Your task to perform on an android device: Search for flights from Zurich to Helsinki Image 0: 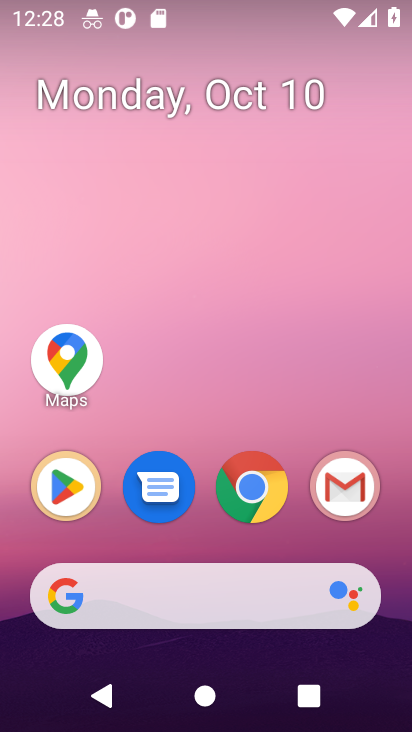
Step 0: click (244, 490)
Your task to perform on an android device: Search for flights from Zurich to Helsinki Image 1: 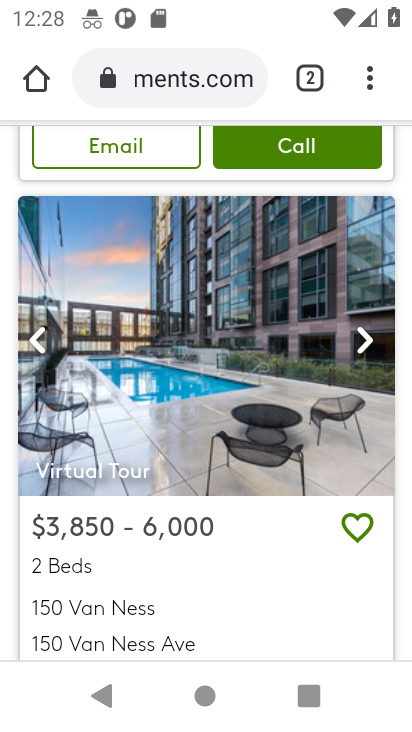
Step 1: click (211, 82)
Your task to perform on an android device: Search for flights from Zurich to Helsinki Image 2: 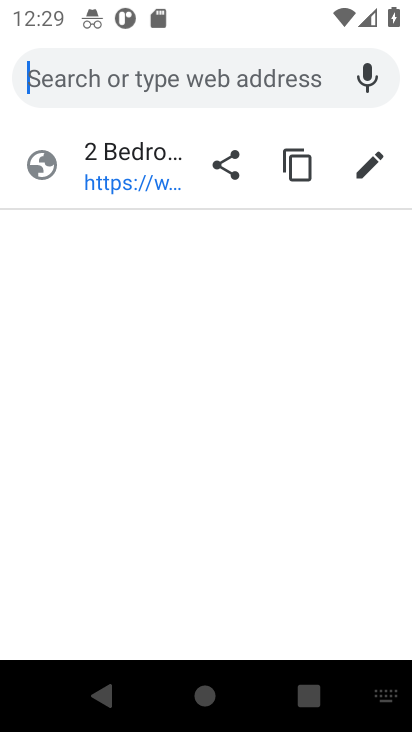
Step 2: type "flights from zurich to Helsinki"
Your task to perform on an android device: Search for flights from Zurich to Helsinki Image 3: 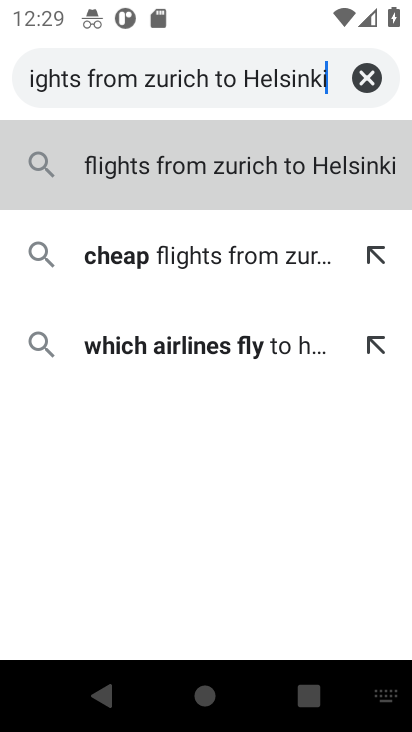
Step 3: type ""
Your task to perform on an android device: Search for flights from Zurich to Helsinki Image 4: 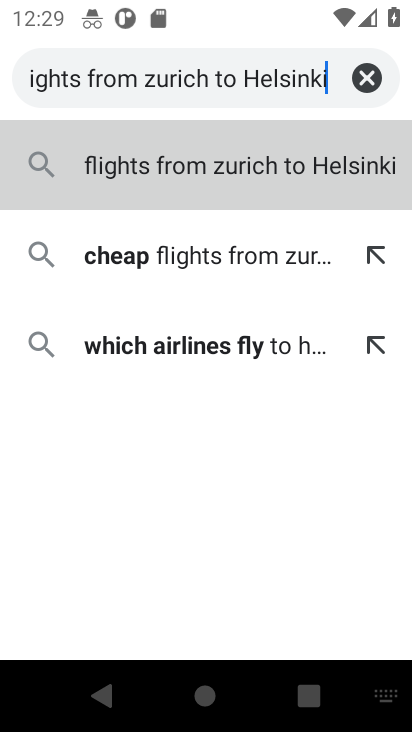
Step 4: press enter
Your task to perform on an android device: Search for flights from Zurich to Helsinki Image 5: 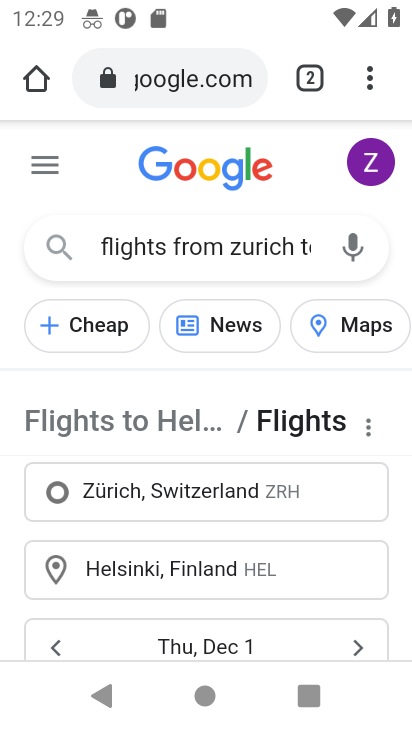
Step 5: drag from (305, 566) to (304, 202)
Your task to perform on an android device: Search for flights from Zurich to Helsinki Image 6: 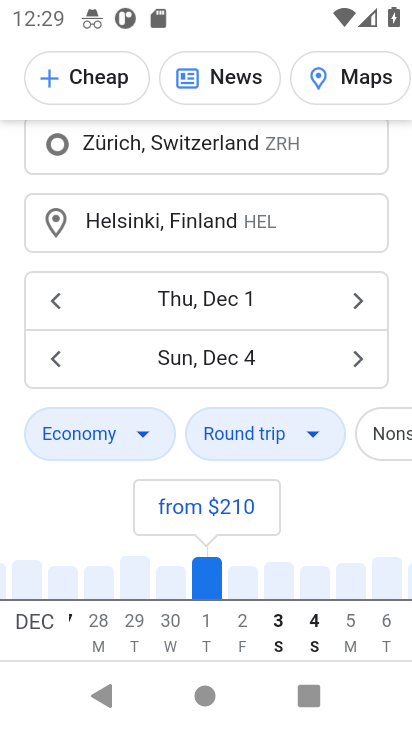
Step 6: drag from (265, 631) to (272, 251)
Your task to perform on an android device: Search for flights from Zurich to Helsinki Image 7: 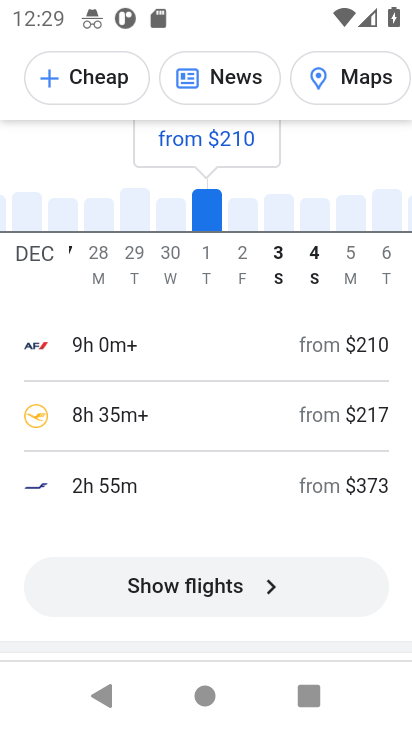
Step 7: click (279, 579)
Your task to perform on an android device: Search for flights from Zurich to Helsinki Image 8: 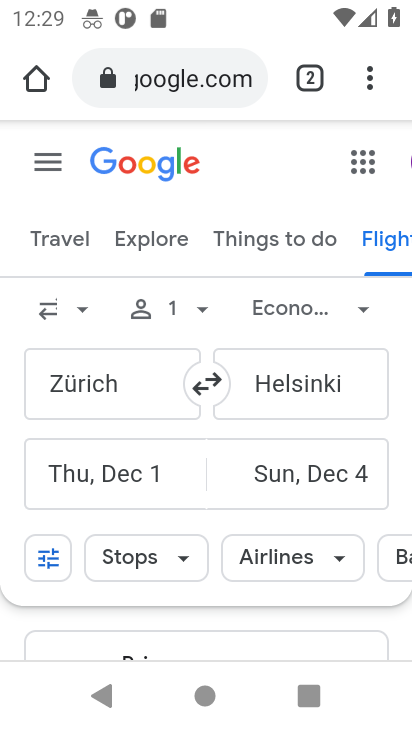
Step 8: drag from (271, 583) to (247, 269)
Your task to perform on an android device: Search for flights from Zurich to Helsinki Image 9: 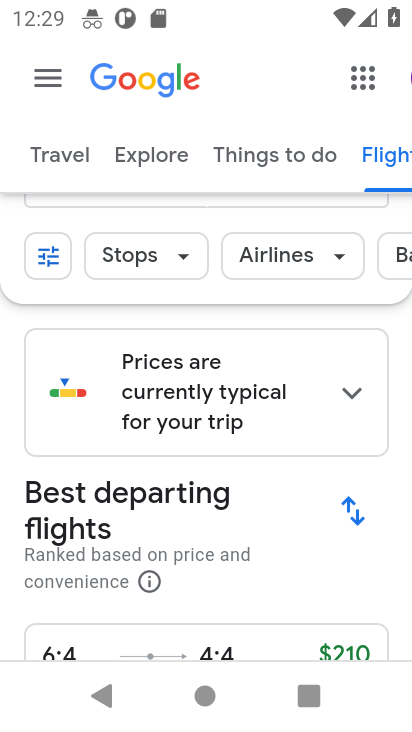
Step 9: drag from (280, 584) to (246, 237)
Your task to perform on an android device: Search for flights from Zurich to Helsinki Image 10: 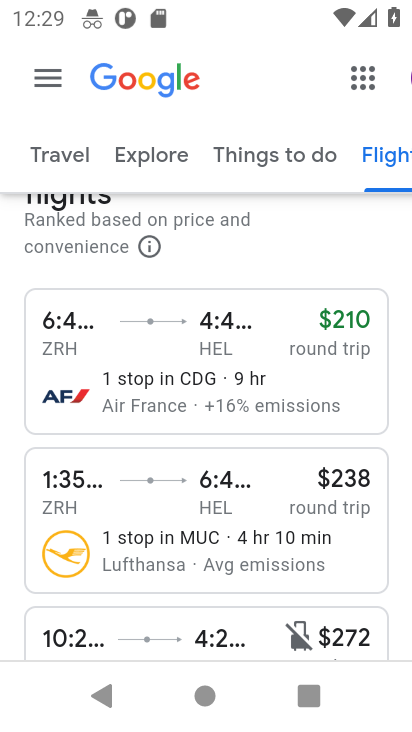
Step 10: drag from (275, 583) to (224, 264)
Your task to perform on an android device: Search for flights from Zurich to Helsinki Image 11: 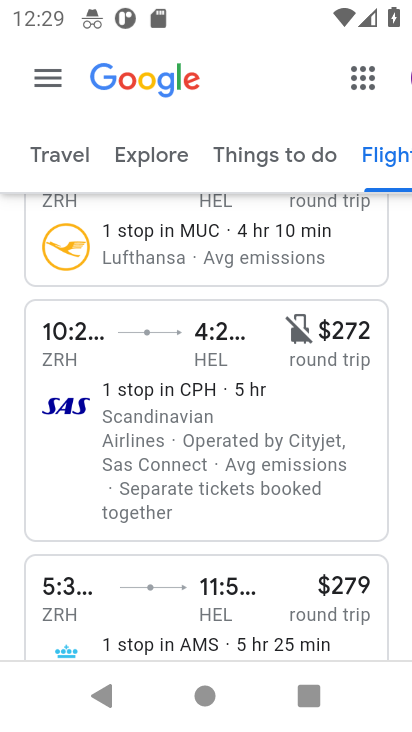
Step 11: drag from (280, 584) to (259, 236)
Your task to perform on an android device: Search for flights from Zurich to Helsinki Image 12: 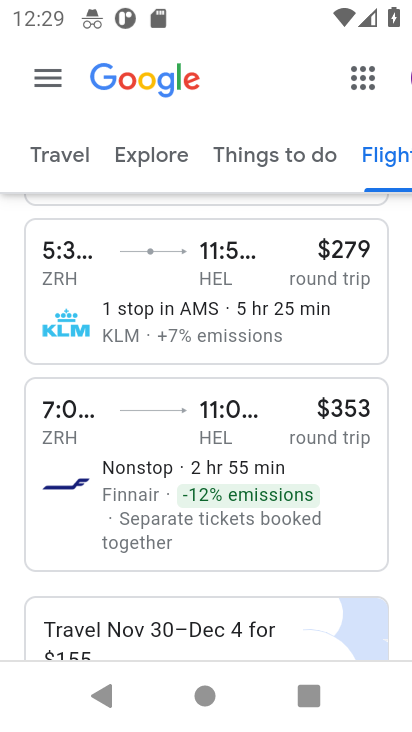
Step 12: click (292, 539)
Your task to perform on an android device: Search for flights from Zurich to Helsinki Image 13: 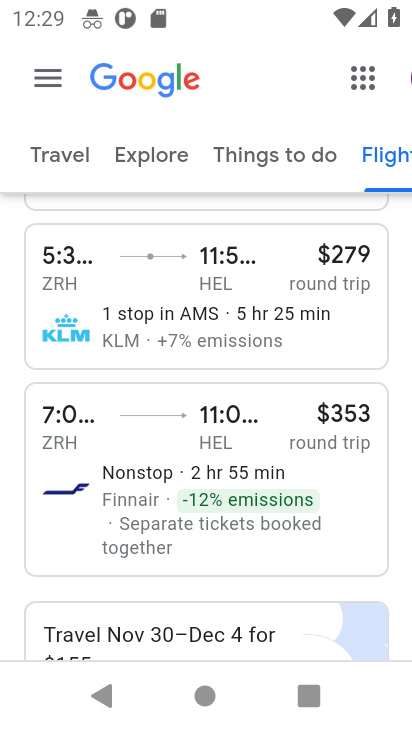
Step 13: task complete